Your task to perform on an android device: Open location settings Image 0: 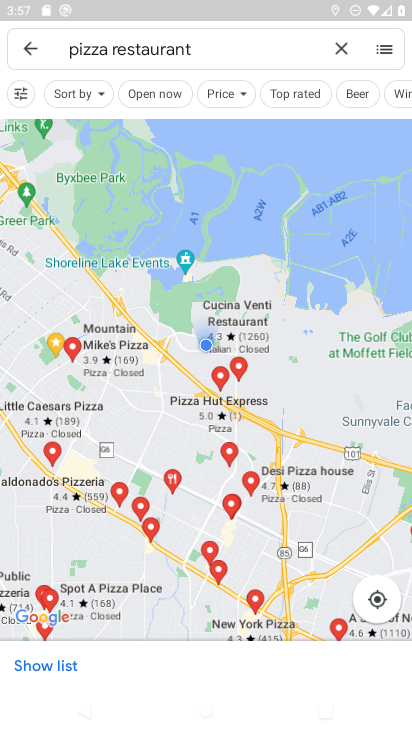
Step 0: press home button
Your task to perform on an android device: Open location settings Image 1: 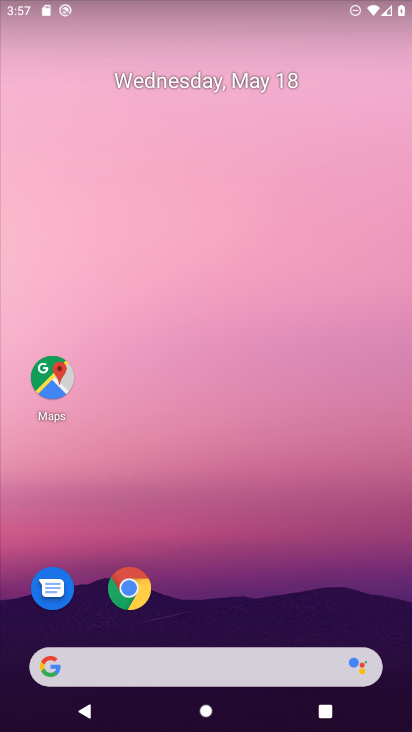
Step 1: drag from (280, 590) to (288, 61)
Your task to perform on an android device: Open location settings Image 2: 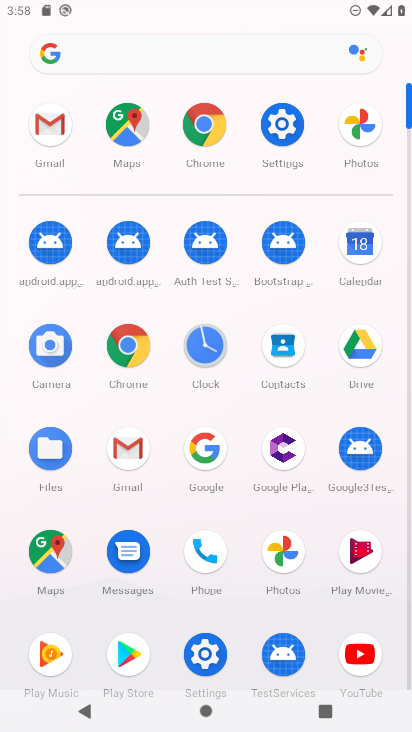
Step 2: click (278, 135)
Your task to perform on an android device: Open location settings Image 3: 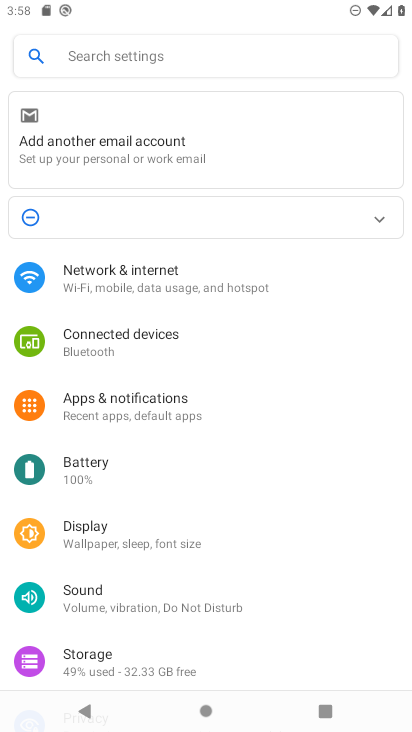
Step 3: drag from (174, 587) to (179, 285)
Your task to perform on an android device: Open location settings Image 4: 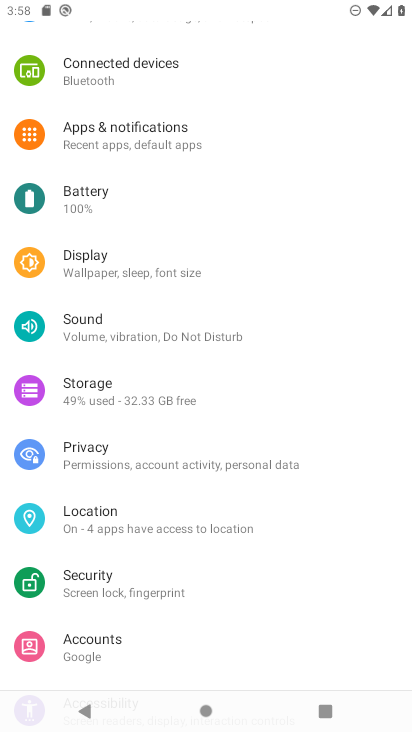
Step 4: click (184, 523)
Your task to perform on an android device: Open location settings Image 5: 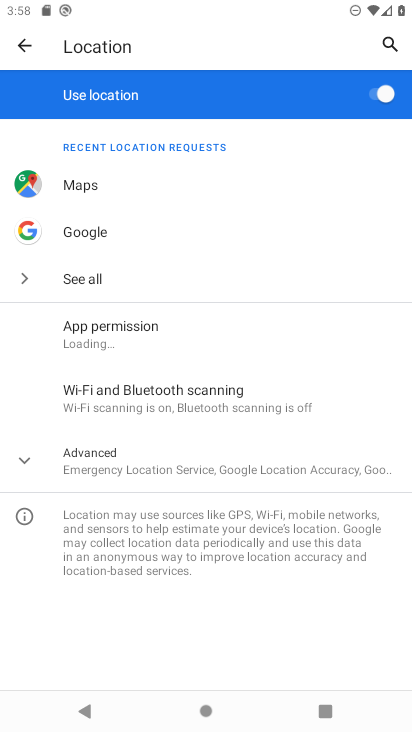
Step 5: task complete